Your task to perform on an android device: Open CNN.com Image 0: 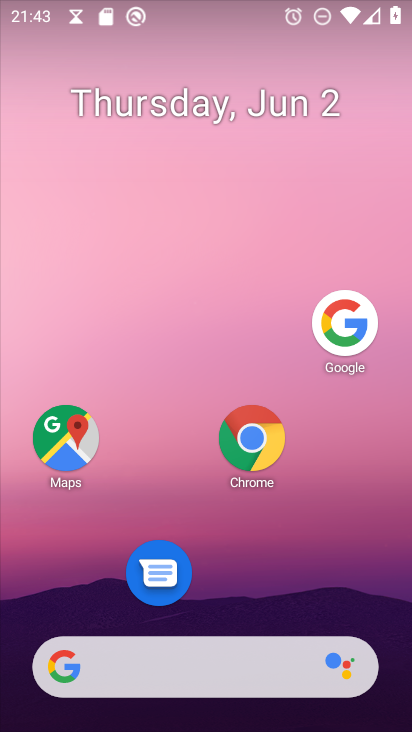
Step 0: press home button
Your task to perform on an android device: Open CNN.com Image 1: 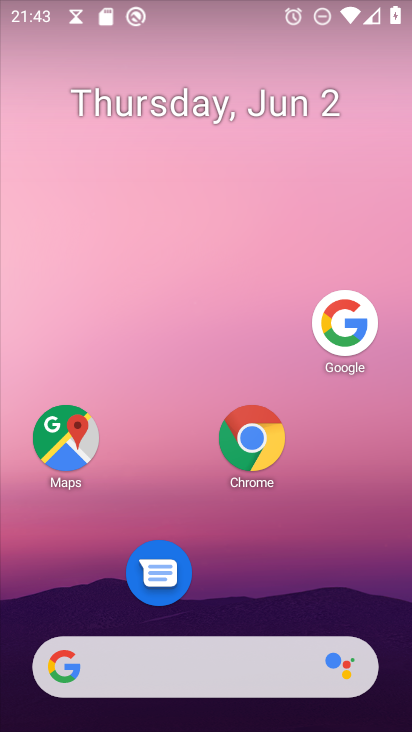
Step 1: click (243, 437)
Your task to perform on an android device: Open CNN.com Image 2: 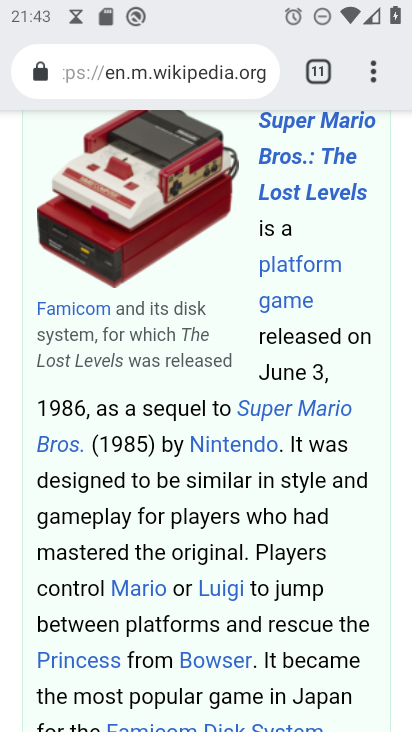
Step 2: drag from (375, 71) to (245, 144)
Your task to perform on an android device: Open CNN.com Image 3: 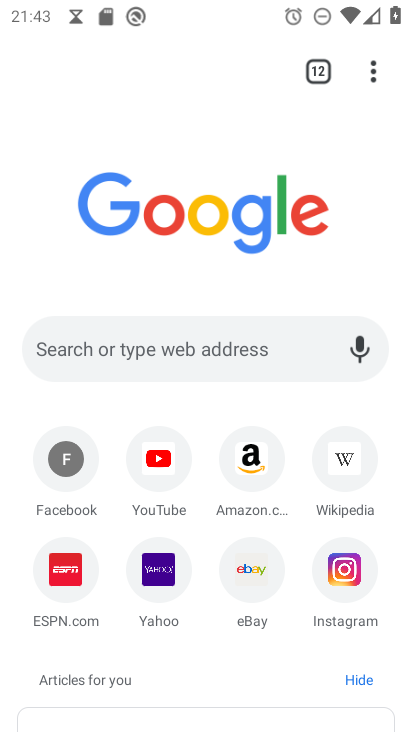
Step 3: click (99, 346)
Your task to perform on an android device: Open CNN.com Image 4: 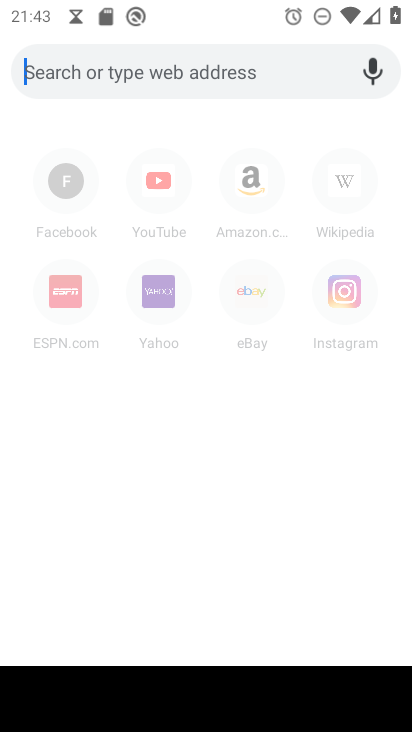
Step 4: type "cnn.com"
Your task to perform on an android device: Open CNN.com Image 5: 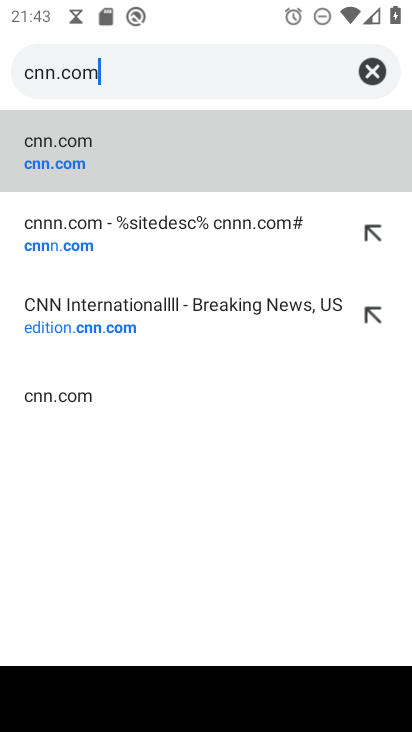
Step 5: click (130, 158)
Your task to perform on an android device: Open CNN.com Image 6: 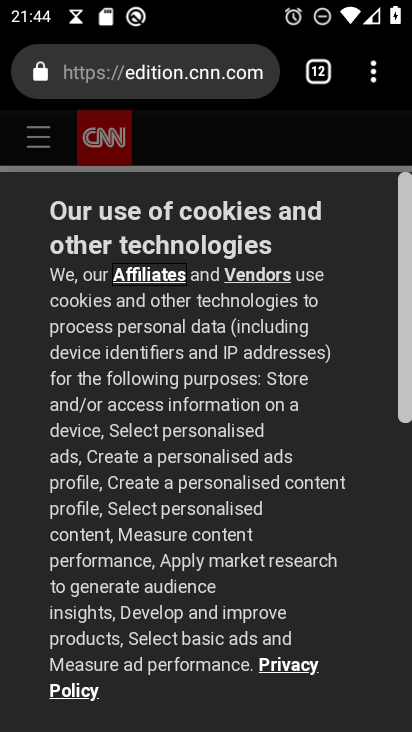
Step 6: drag from (204, 627) to (411, 152)
Your task to perform on an android device: Open CNN.com Image 7: 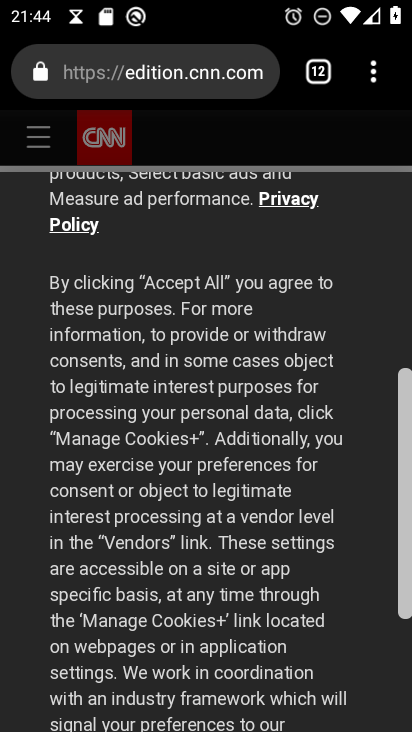
Step 7: drag from (232, 632) to (367, 272)
Your task to perform on an android device: Open CNN.com Image 8: 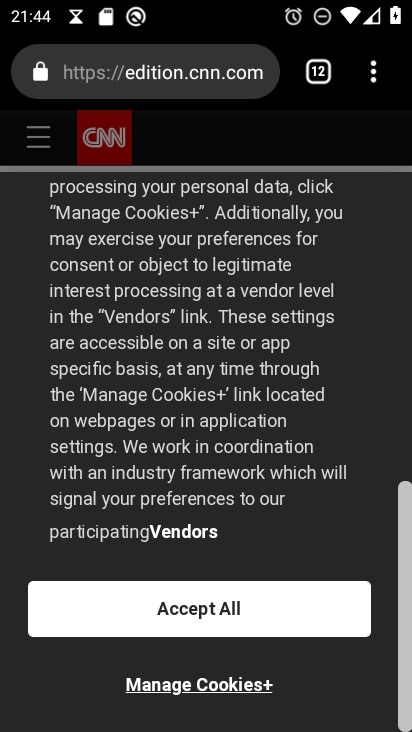
Step 8: click (209, 599)
Your task to perform on an android device: Open CNN.com Image 9: 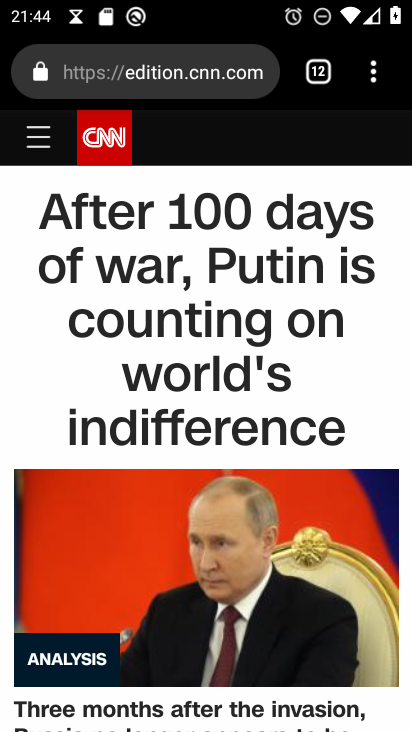
Step 9: task complete